Your task to perform on an android device: Open display settings Image 0: 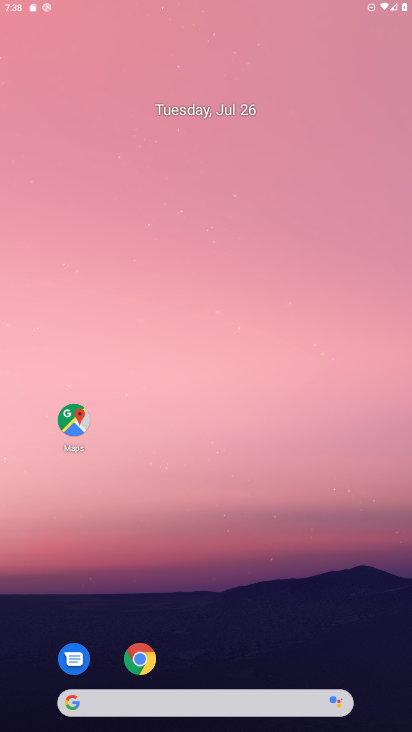
Step 0: drag from (220, 509) to (295, 55)
Your task to perform on an android device: Open display settings Image 1: 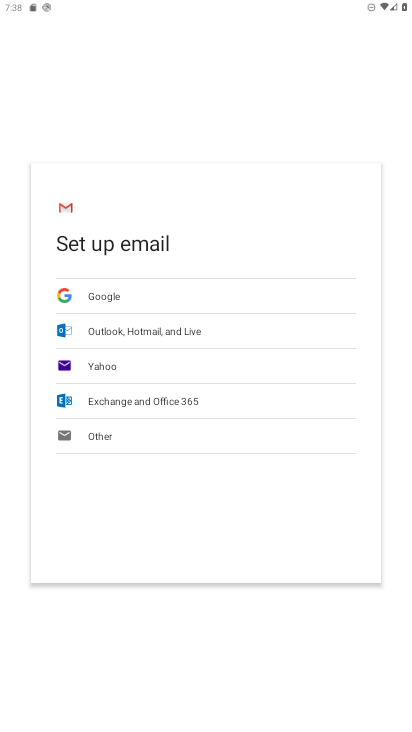
Step 1: press home button
Your task to perform on an android device: Open display settings Image 2: 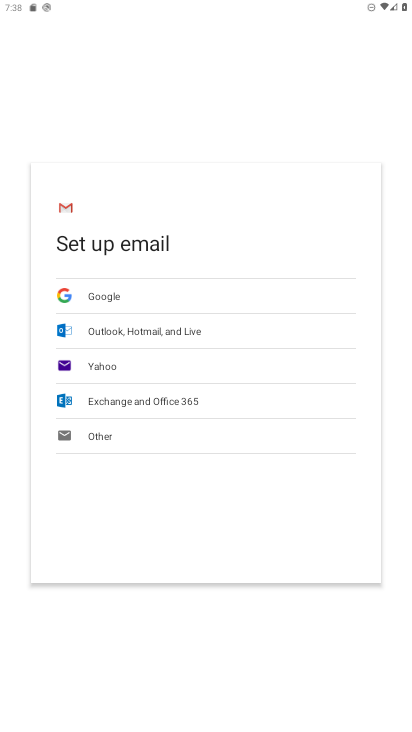
Step 2: drag from (295, 55) to (401, 491)
Your task to perform on an android device: Open display settings Image 3: 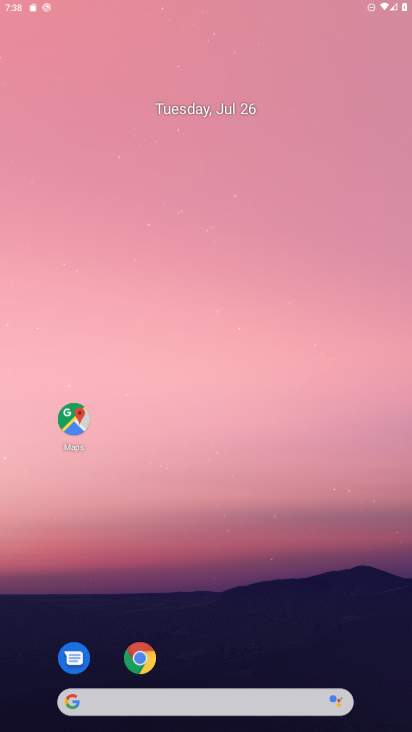
Step 3: drag from (207, 648) to (232, 37)
Your task to perform on an android device: Open display settings Image 4: 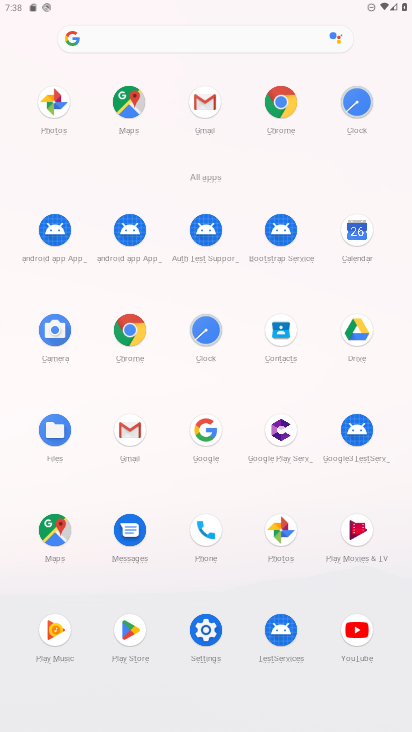
Step 4: click (201, 624)
Your task to perform on an android device: Open display settings Image 5: 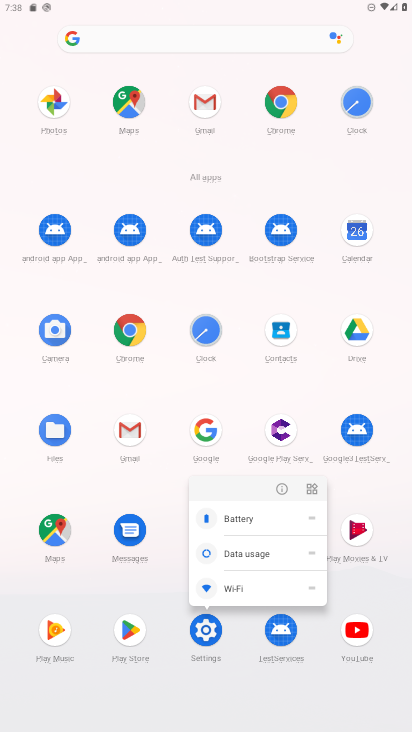
Step 5: click (277, 496)
Your task to perform on an android device: Open display settings Image 6: 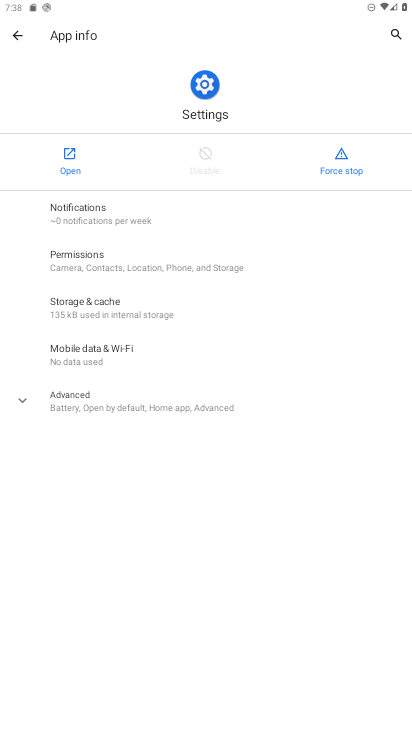
Step 6: click (70, 154)
Your task to perform on an android device: Open display settings Image 7: 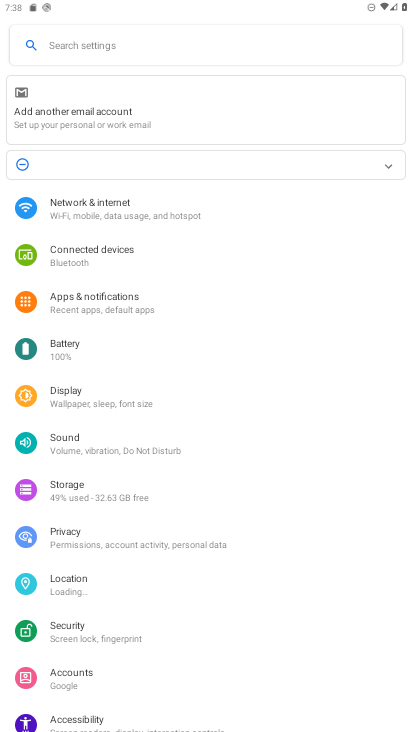
Step 7: click (119, 402)
Your task to perform on an android device: Open display settings Image 8: 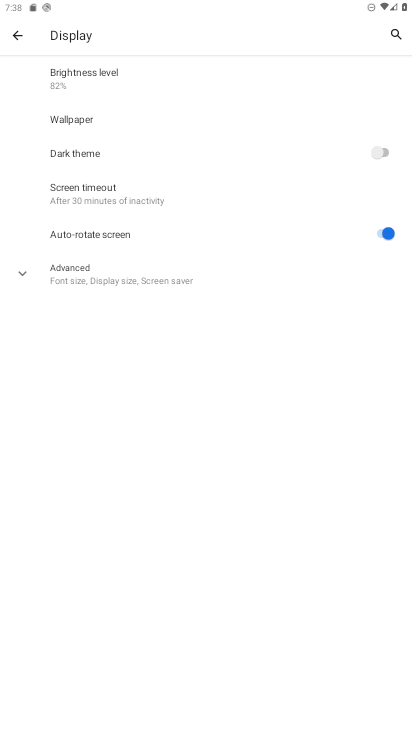
Step 8: task complete